Your task to perform on an android device: Open Maps and search for coffee Image 0: 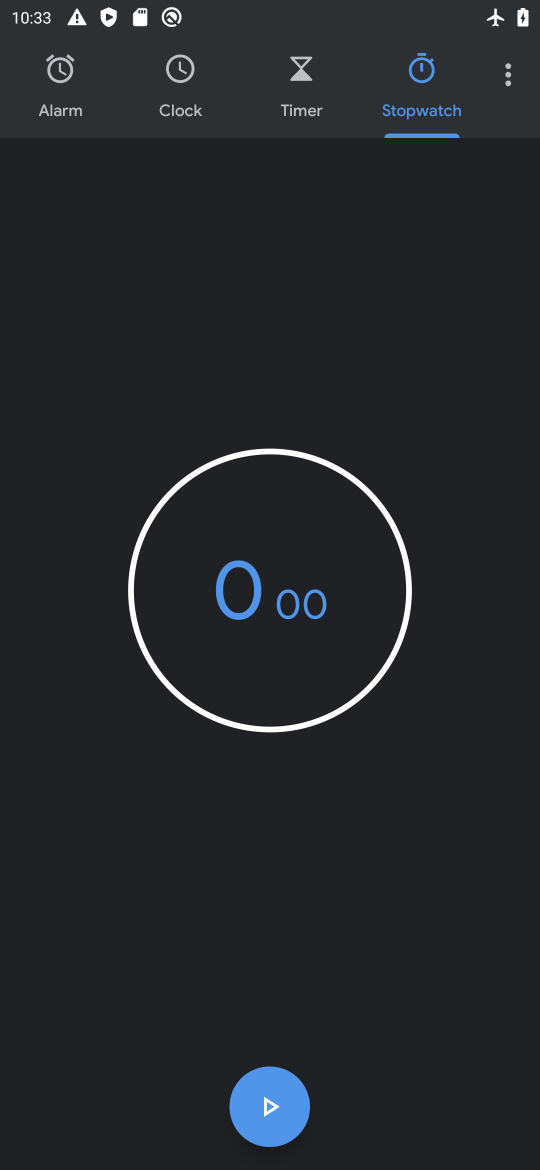
Step 0: press home button
Your task to perform on an android device: Open Maps and search for coffee Image 1: 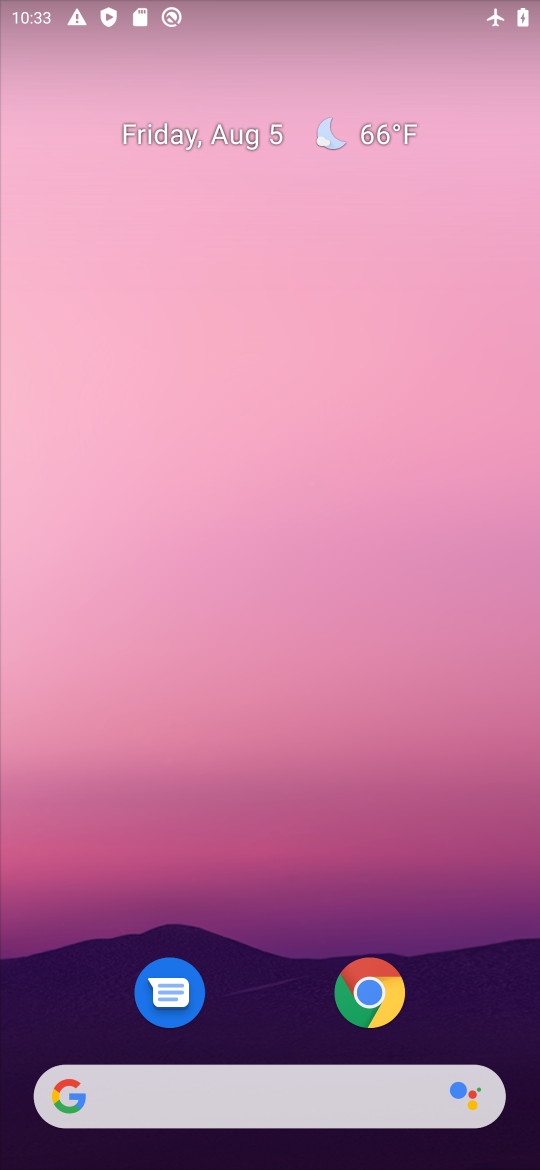
Step 1: drag from (291, 939) to (384, 327)
Your task to perform on an android device: Open Maps and search for coffee Image 2: 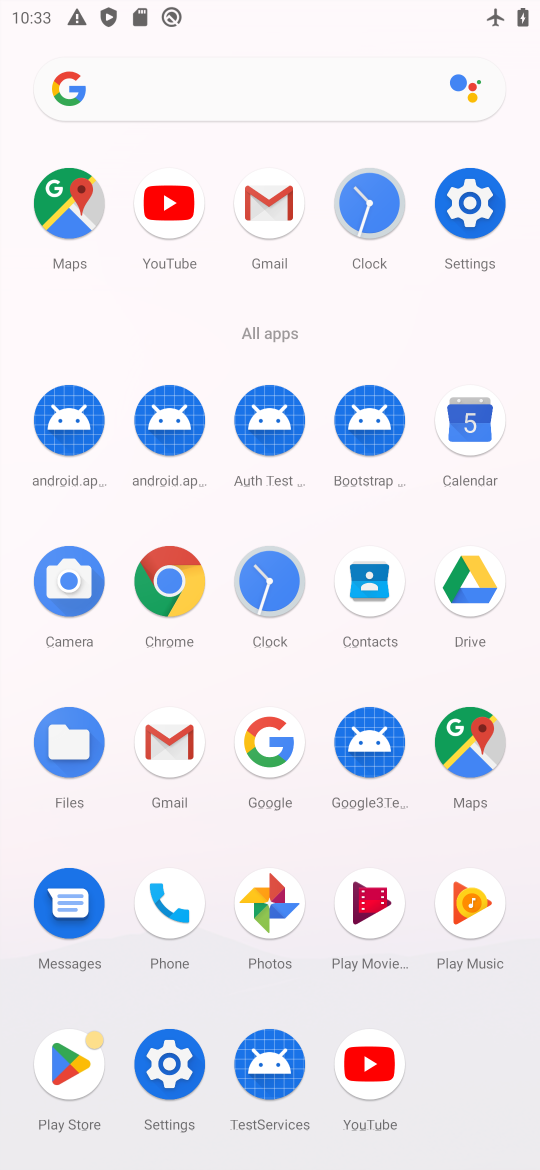
Step 2: click (480, 753)
Your task to perform on an android device: Open Maps and search for coffee Image 3: 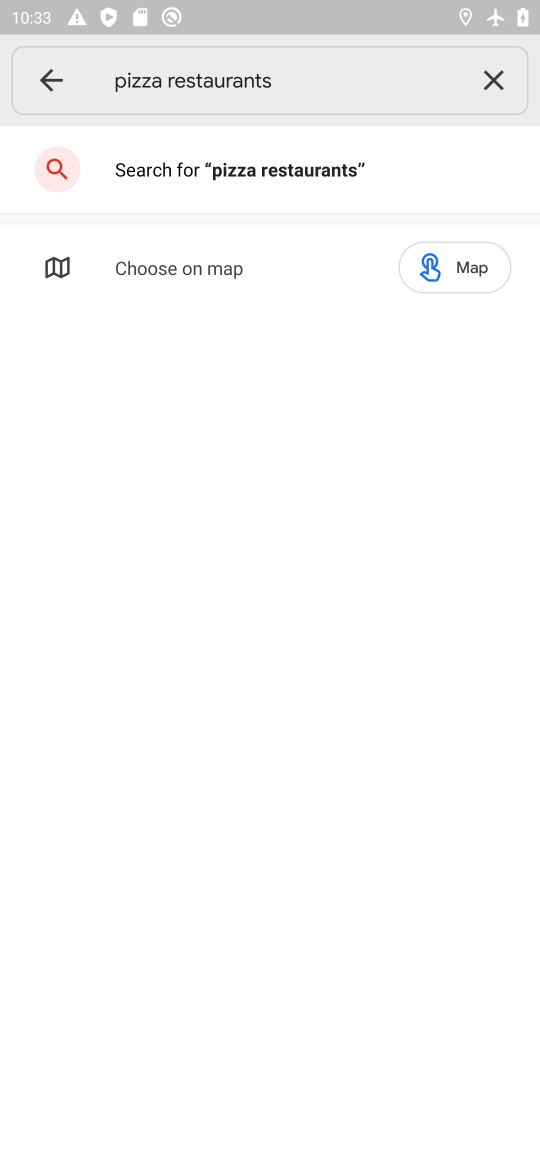
Step 3: click (41, 81)
Your task to perform on an android device: Open Maps and search for coffee Image 4: 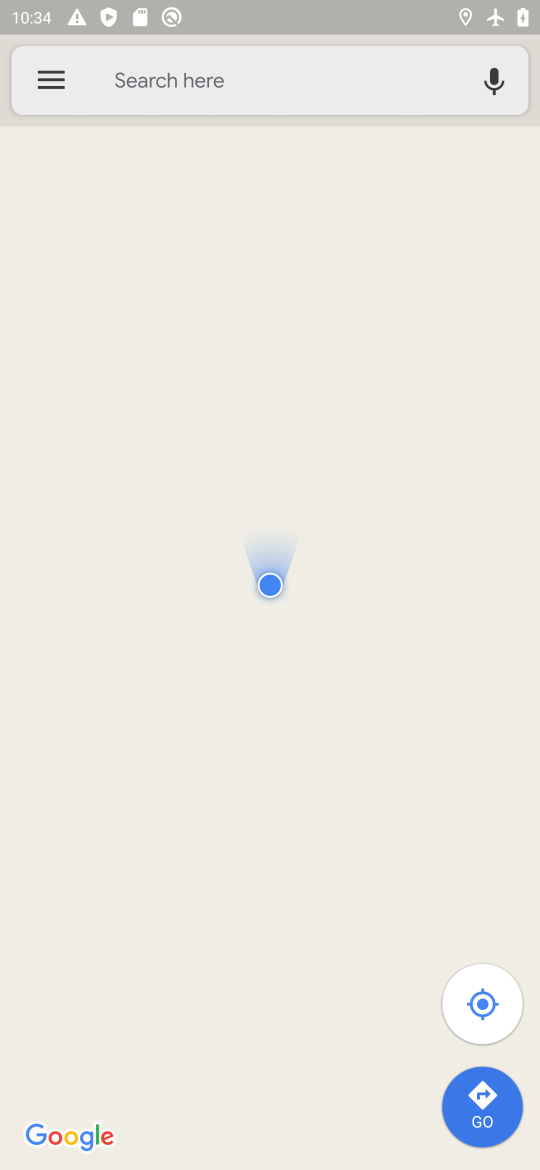
Step 4: click (238, 87)
Your task to perform on an android device: Open Maps and search for coffee Image 5: 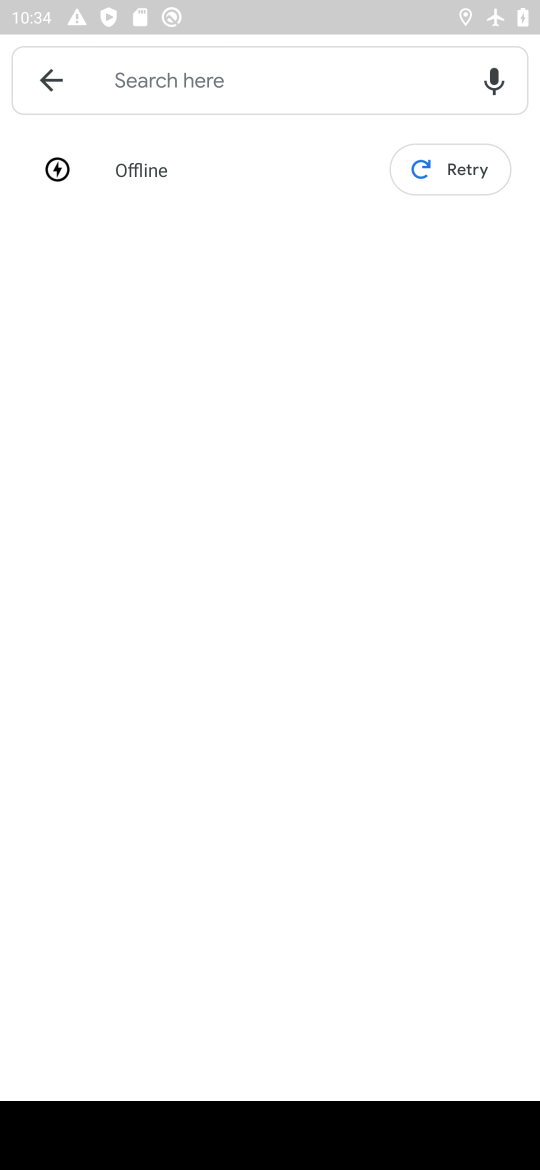
Step 5: click (263, 89)
Your task to perform on an android device: Open Maps and search for coffee Image 6: 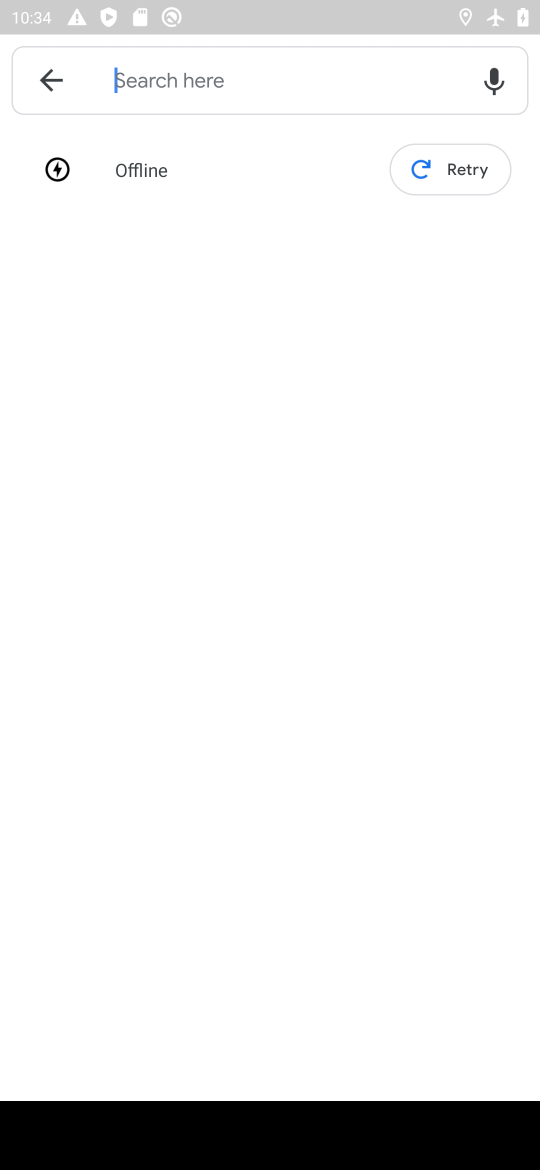
Step 6: type "coffee"
Your task to perform on an android device: Open Maps and search for coffee Image 7: 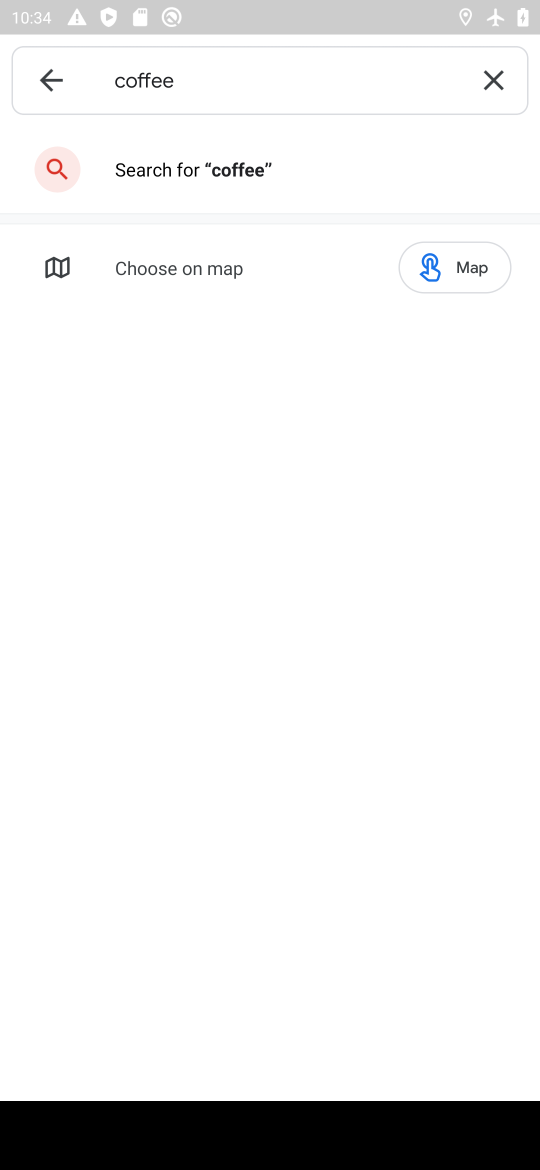
Step 7: task complete